Your task to perform on an android device: change the clock style Image 0: 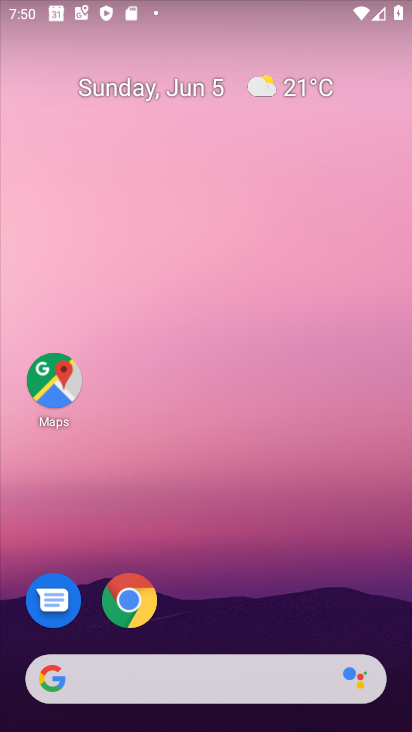
Step 0: drag from (198, 725) to (200, 30)
Your task to perform on an android device: change the clock style Image 1: 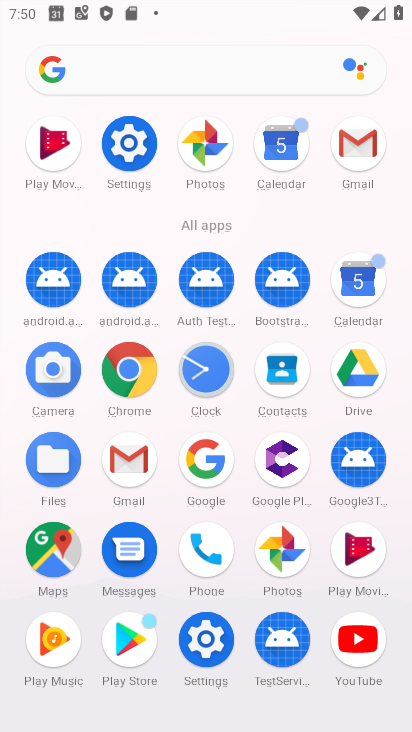
Step 1: click (206, 377)
Your task to perform on an android device: change the clock style Image 2: 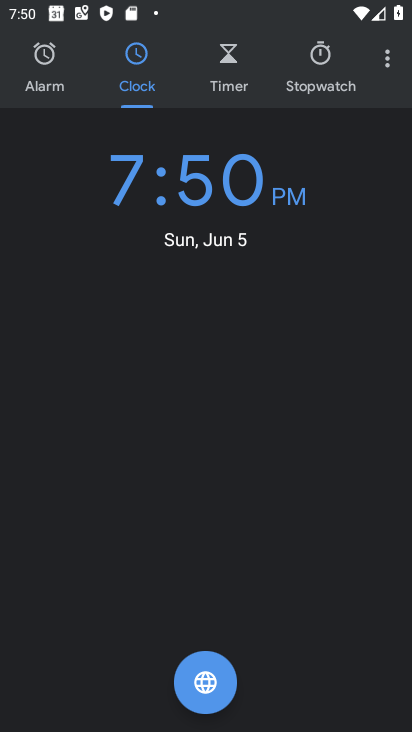
Step 2: click (382, 52)
Your task to perform on an android device: change the clock style Image 3: 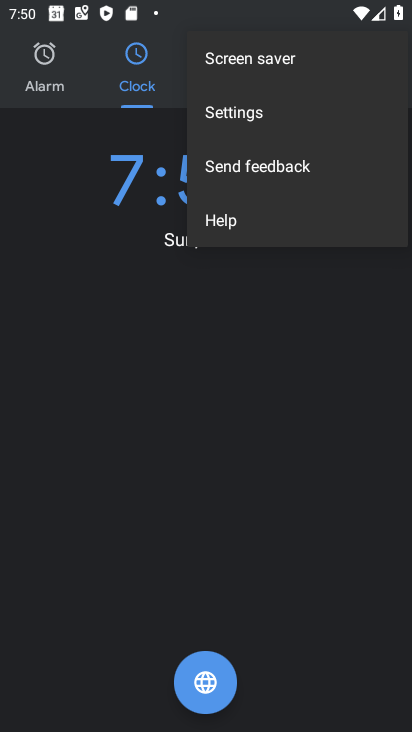
Step 3: click (323, 125)
Your task to perform on an android device: change the clock style Image 4: 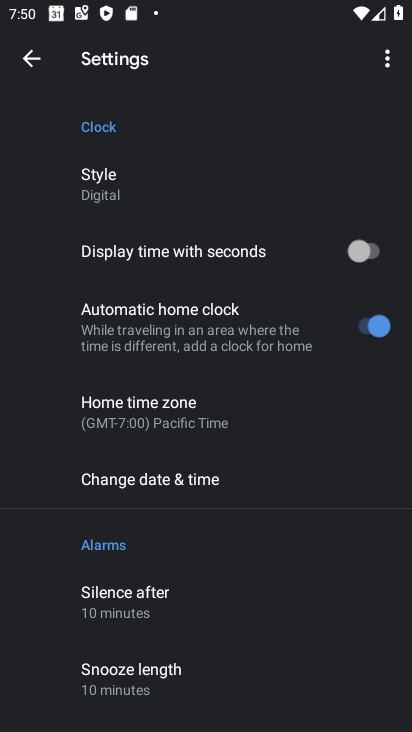
Step 4: click (143, 193)
Your task to perform on an android device: change the clock style Image 5: 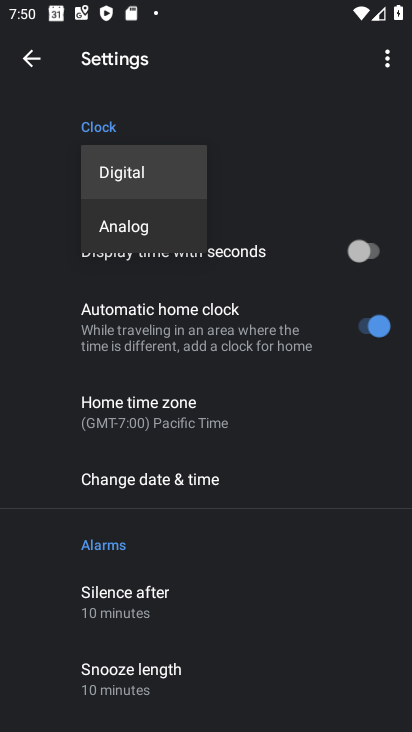
Step 5: click (142, 241)
Your task to perform on an android device: change the clock style Image 6: 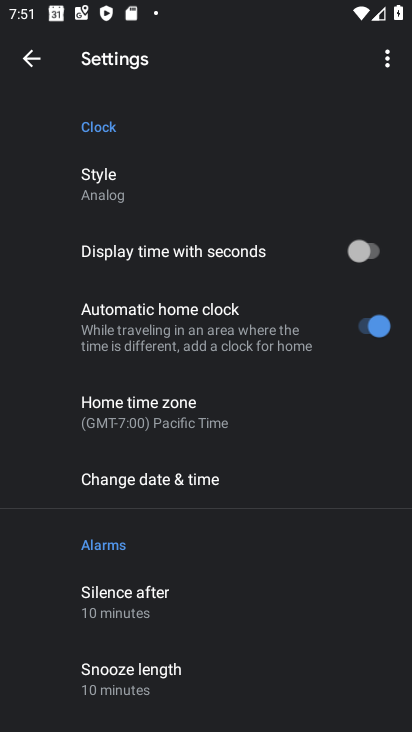
Step 6: task complete